Your task to perform on an android device: Go to Wikipedia Image 0: 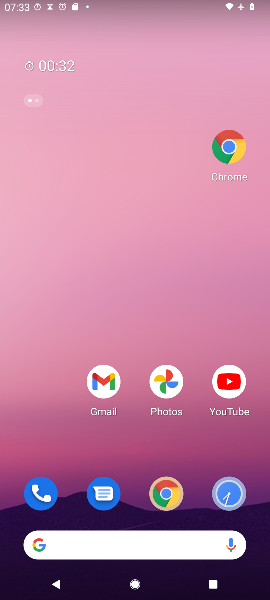
Step 0: press home button
Your task to perform on an android device: Go to Wikipedia Image 1: 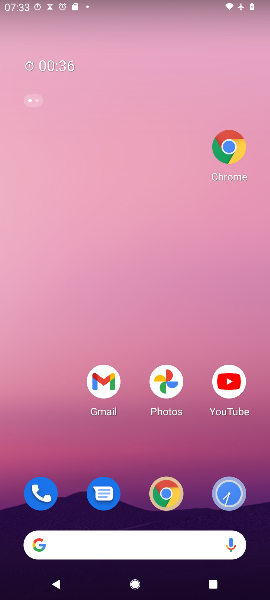
Step 1: click (42, 549)
Your task to perform on an android device: Go to Wikipedia Image 2: 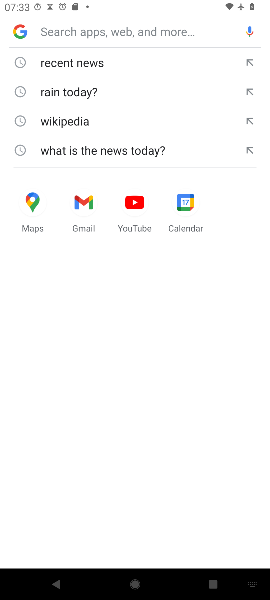
Step 2: click (61, 121)
Your task to perform on an android device: Go to Wikipedia Image 3: 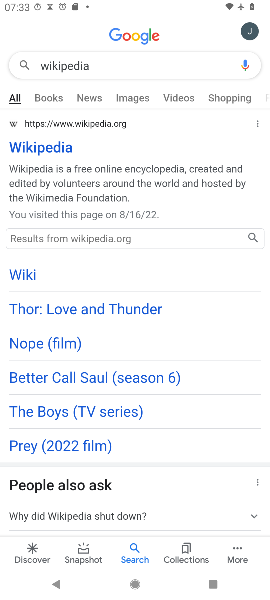
Step 3: click (27, 151)
Your task to perform on an android device: Go to Wikipedia Image 4: 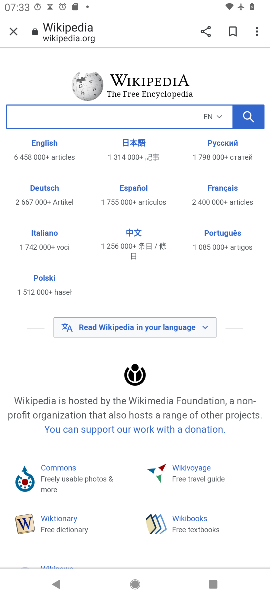
Step 4: task complete